Your task to perform on an android device: check android version Image 0: 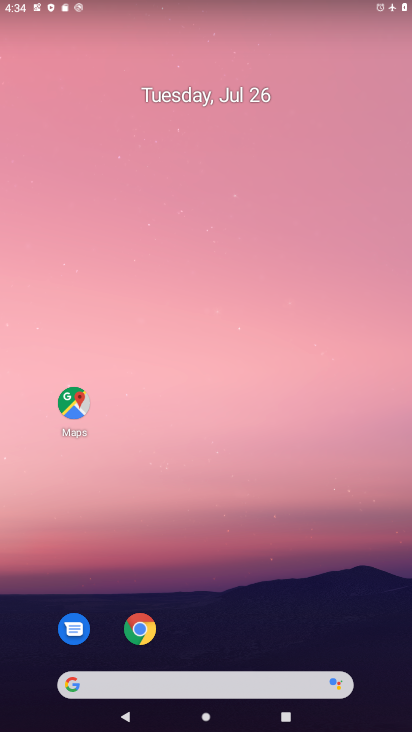
Step 0: drag from (227, 719) to (227, 96)
Your task to perform on an android device: check android version Image 1: 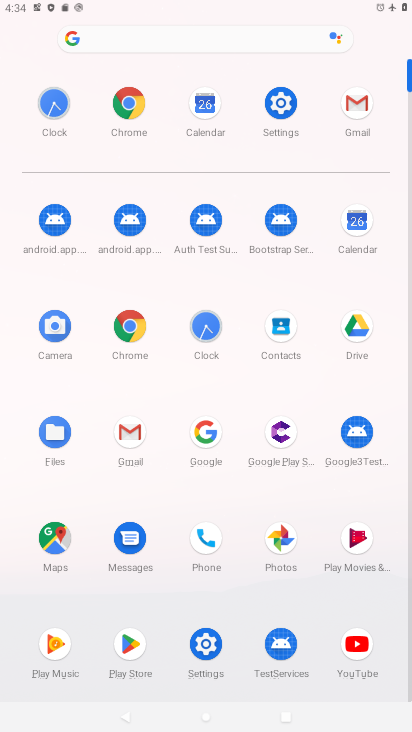
Step 1: click (284, 96)
Your task to perform on an android device: check android version Image 2: 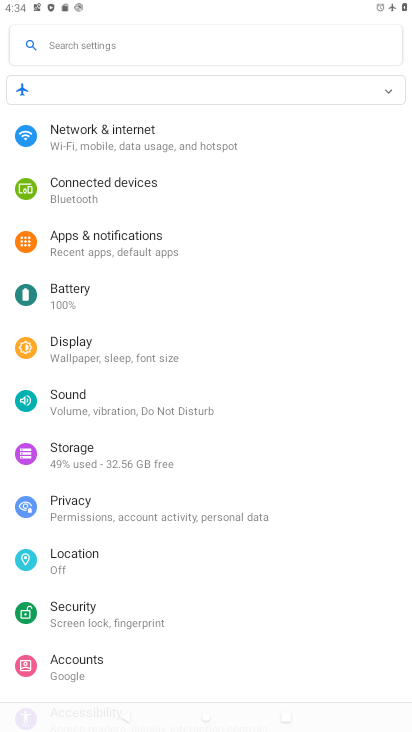
Step 2: drag from (111, 677) to (156, 190)
Your task to perform on an android device: check android version Image 3: 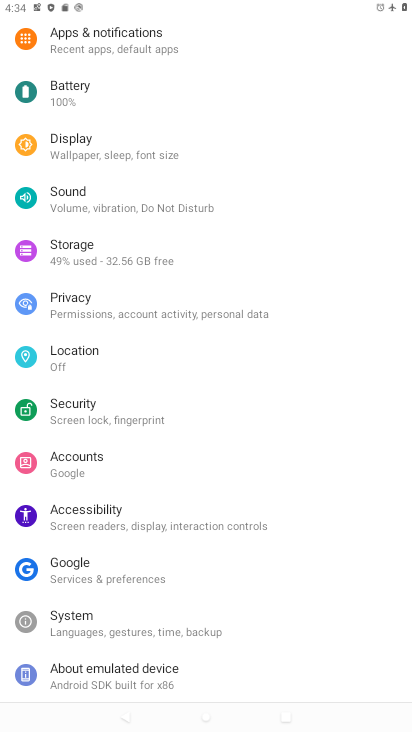
Step 3: click (122, 673)
Your task to perform on an android device: check android version Image 4: 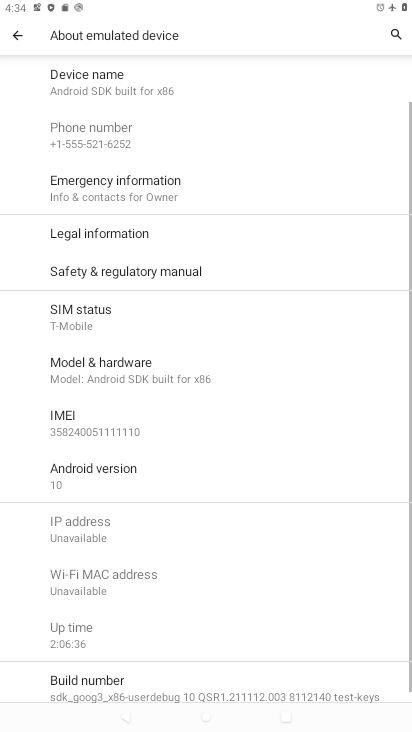
Step 4: click (101, 471)
Your task to perform on an android device: check android version Image 5: 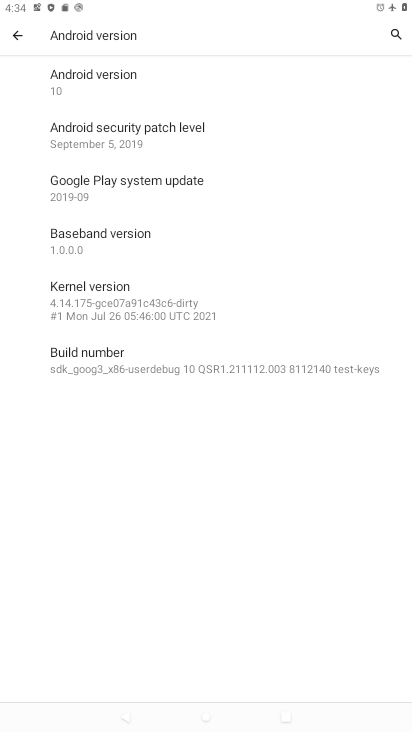
Step 5: click (63, 74)
Your task to perform on an android device: check android version Image 6: 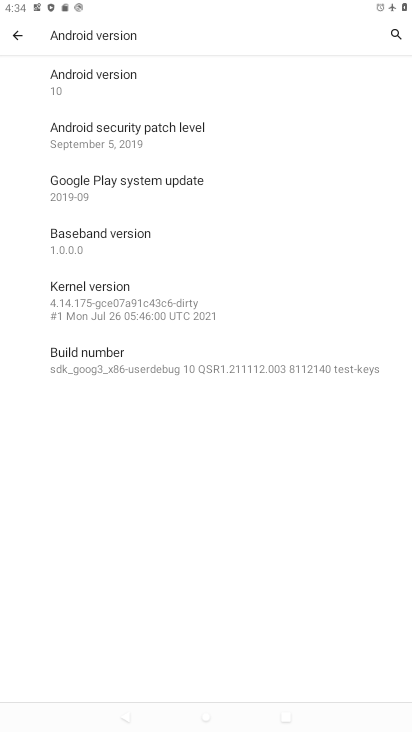
Step 6: task complete